Your task to perform on an android device: Turn on the flashlight Image 0: 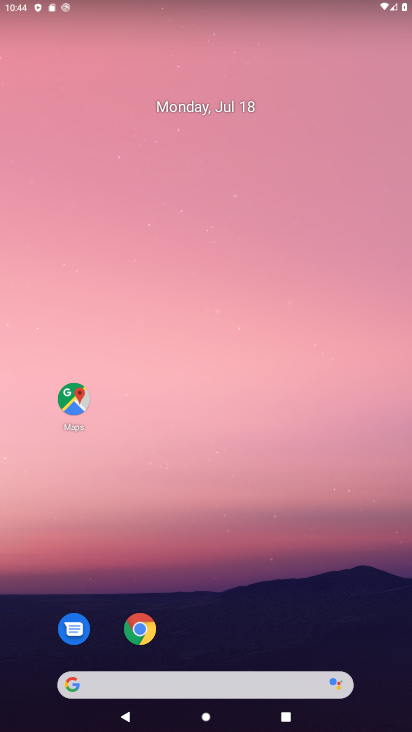
Step 0: drag from (390, 707) to (366, 127)
Your task to perform on an android device: Turn on the flashlight Image 1: 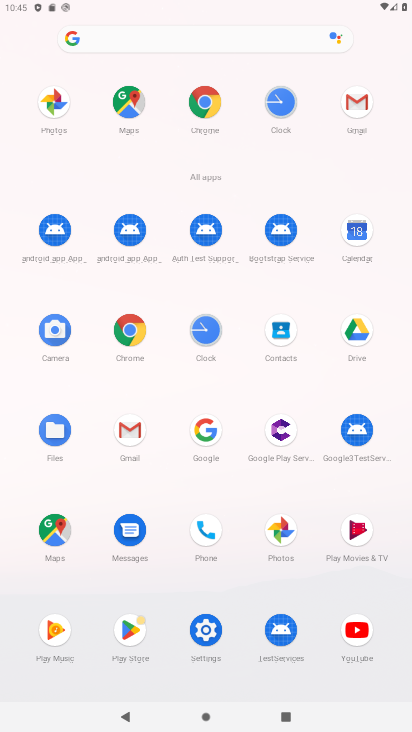
Step 1: click (199, 638)
Your task to perform on an android device: Turn on the flashlight Image 2: 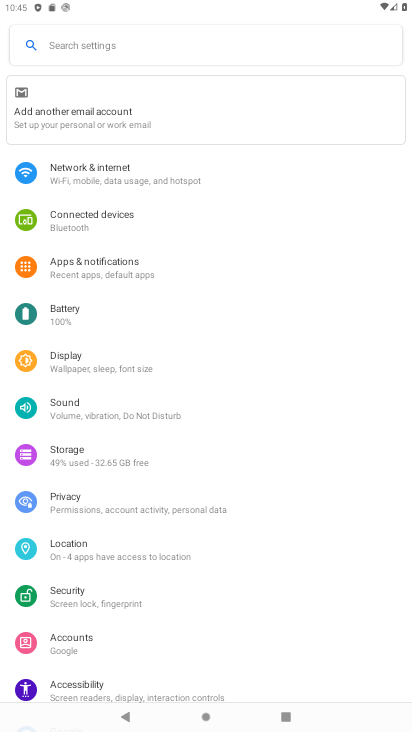
Step 2: click (69, 352)
Your task to perform on an android device: Turn on the flashlight Image 3: 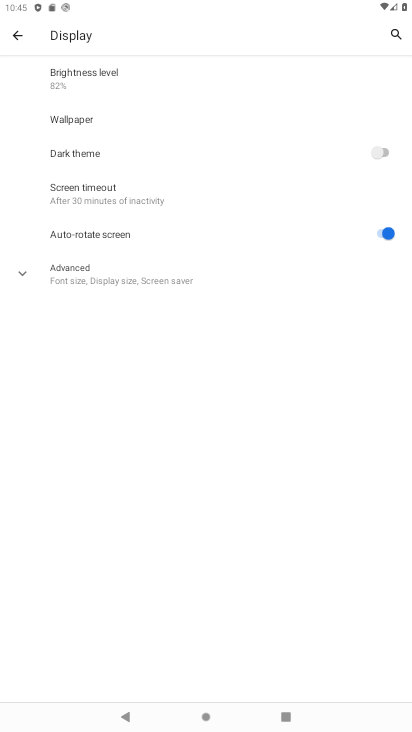
Step 3: click (23, 276)
Your task to perform on an android device: Turn on the flashlight Image 4: 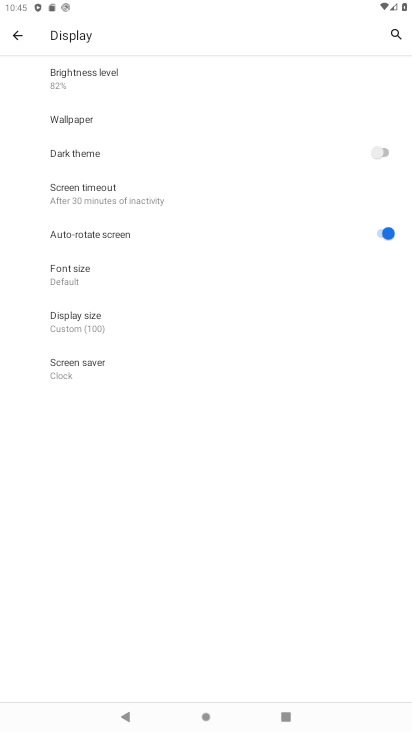
Step 4: click (95, 186)
Your task to perform on an android device: Turn on the flashlight Image 5: 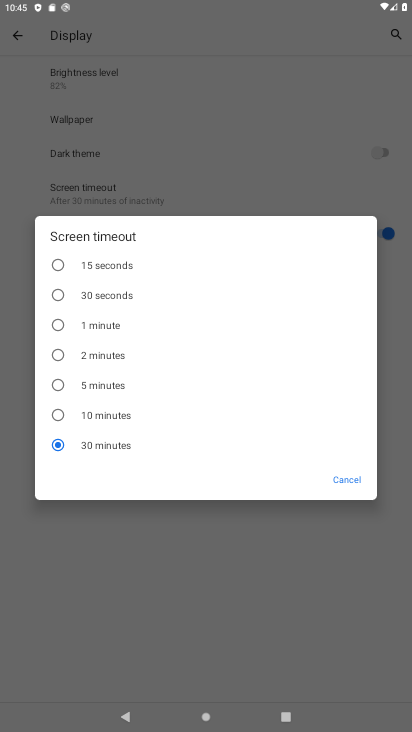
Step 5: click (58, 415)
Your task to perform on an android device: Turn on the flashlight Image 6: 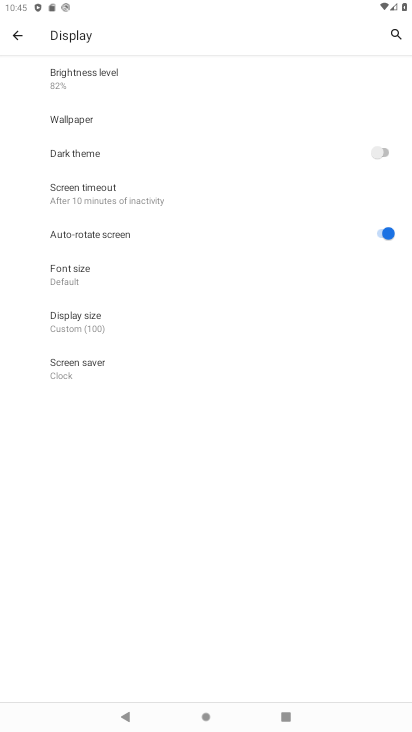
Step 6: task complete